Your task to perform on an android device: check data usage Image 0: 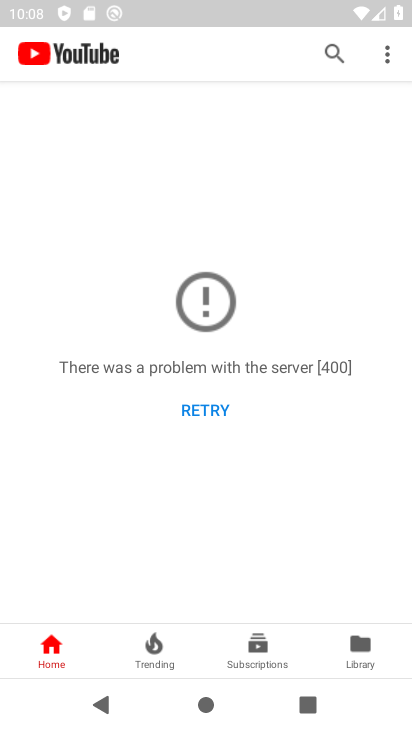
Step 0: press home button
Your task to perform on an android device: check data usage Image 1: 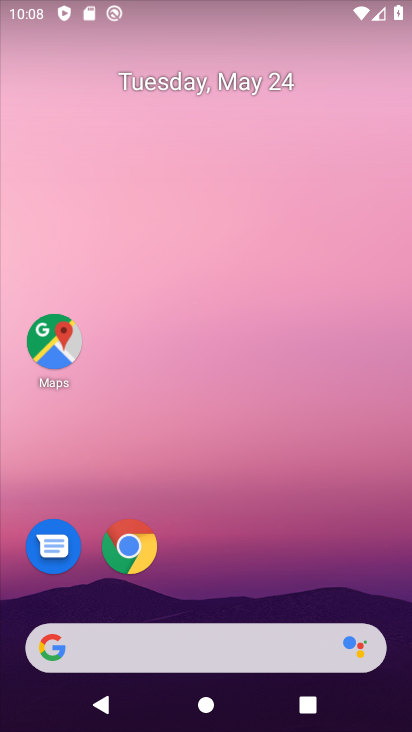
Step 1: drag from (297, 527) to (267, 109)
Your task to perform on an android device: check data usage Image 2: 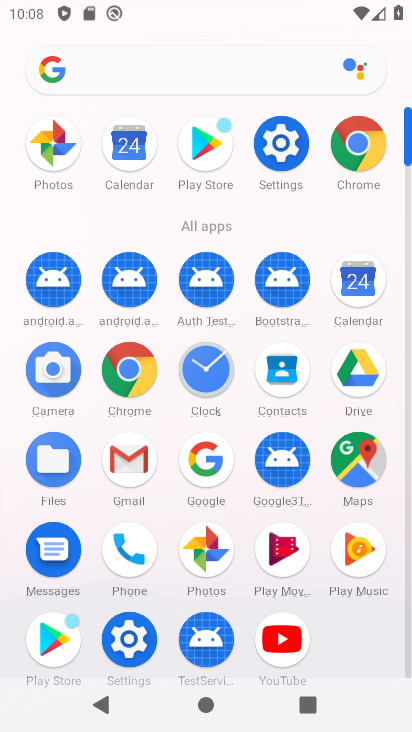
Step 2: click (285, 135)
Your task to perform on an android device: check data usage Image 3: 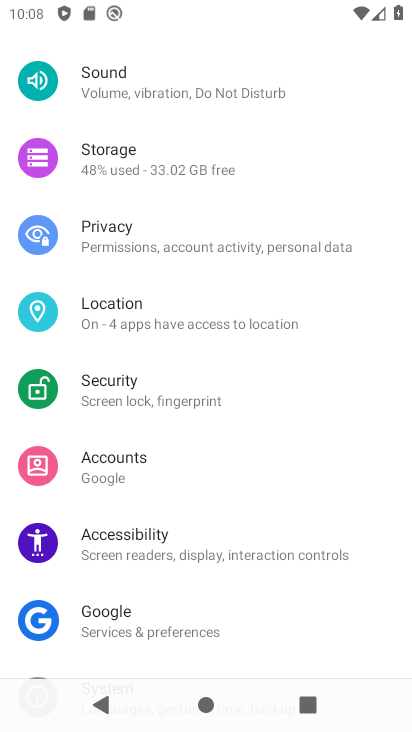
Step 3: drag from (236, 138) to (179, 543)
Your task to perform on an android device: check data usage Image 4: 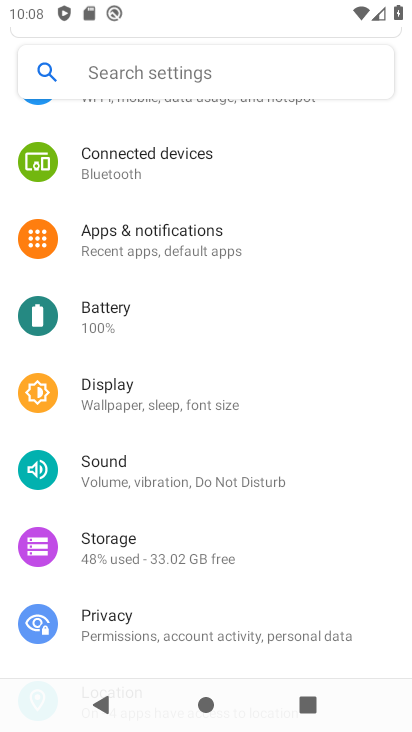
Step 4: drag from (195, 202) to (160, 536)
Your task to perform on an android device: check data usage Image 5: 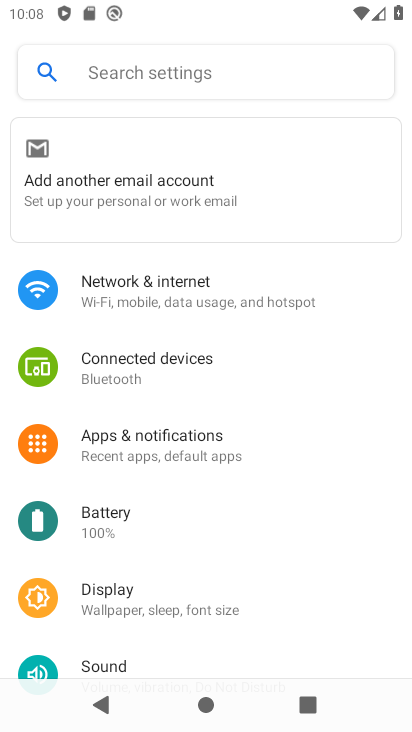
Step 5: click (199, 300)
Your task to perform on an android device: check data usage Image 6: 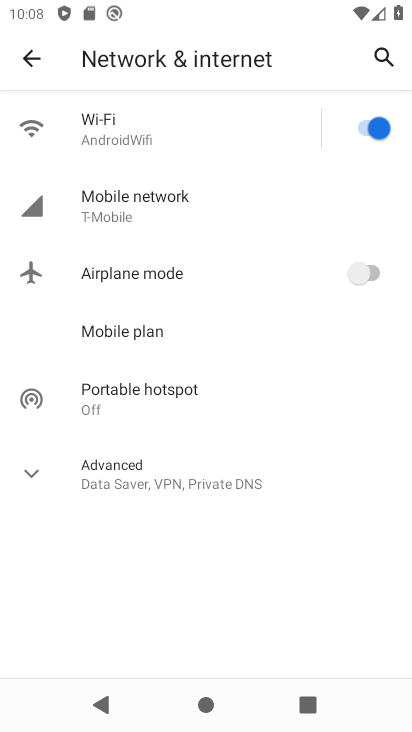
Step 6: click (205, 228)
Your task to perform on an android device: check data usage Image 7: 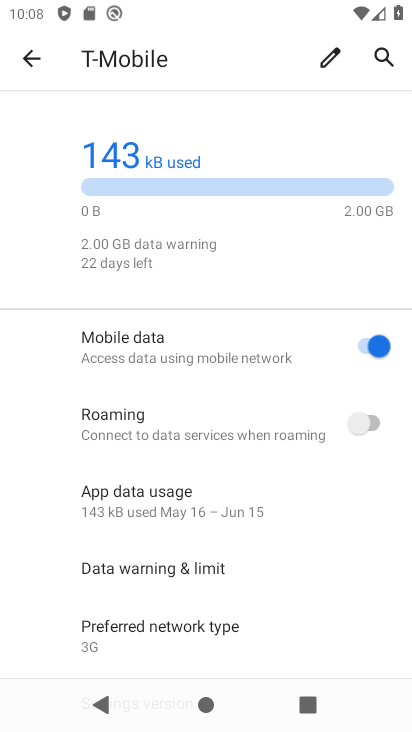
Step 7: task complete